Your task to perform on an android device: Search for pizza restaurants on Maps Image 0: 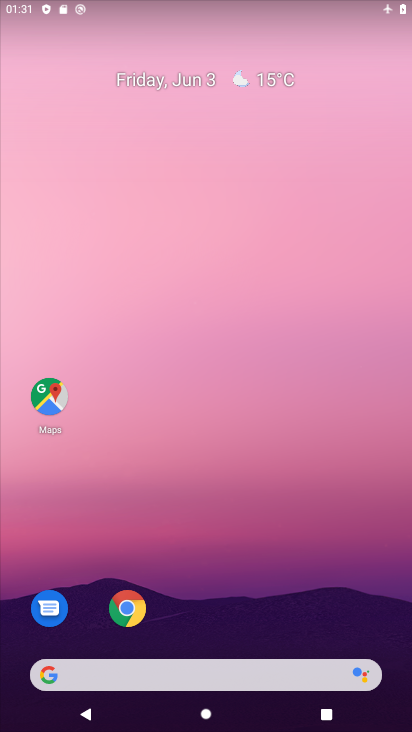
Step 0: click (49, 397)
Your task to perform on an android device: Search for pizza restaurants on Maps Image 1: 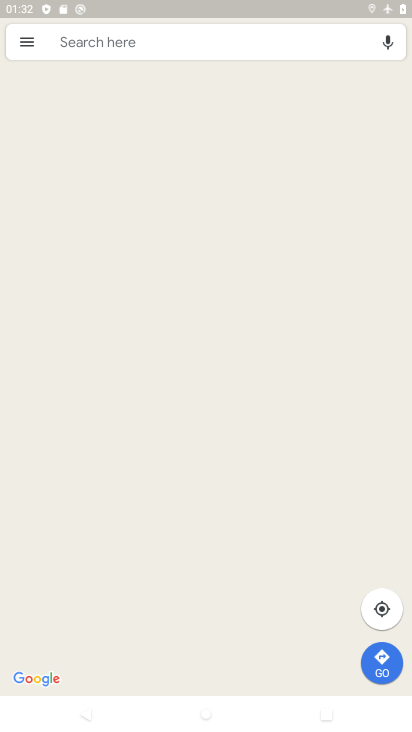
Step 1: click (97, 34)
Your task to perform on an android device: Search for pizza restaurants on Maps Image 2: 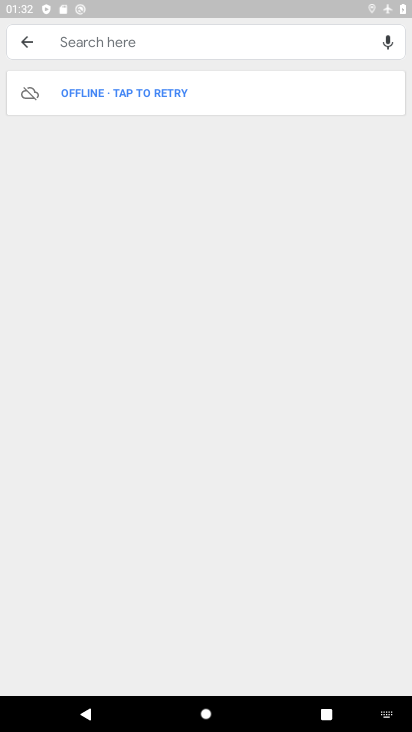
Step 2: type "pizza restaurants"
Your task to perform on an android device: Search for pizza restaurants on Maps Image 3: 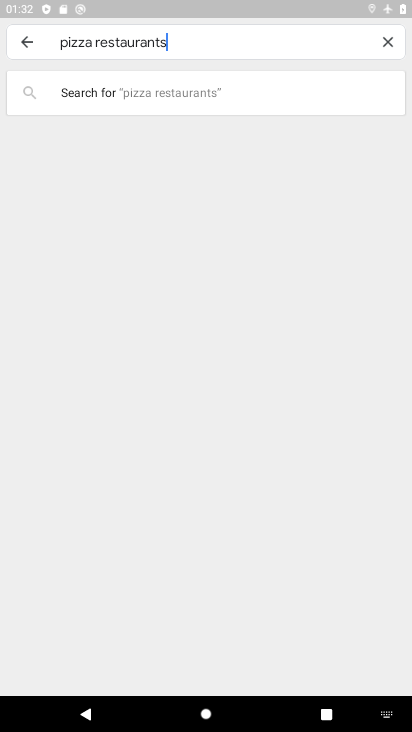
Step 3: press enter
Your task to perform on an android device: Search for pizza restaurants on Maps Image 4: 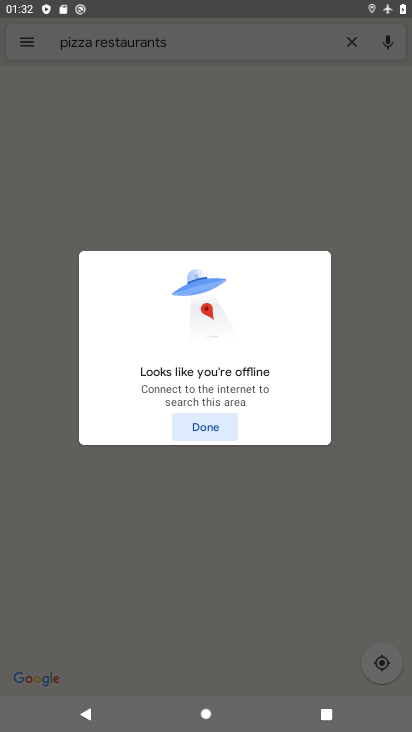
Step 4: task complete